Your task to perform on an android device: delete browsing data in the chrome app Image 0: 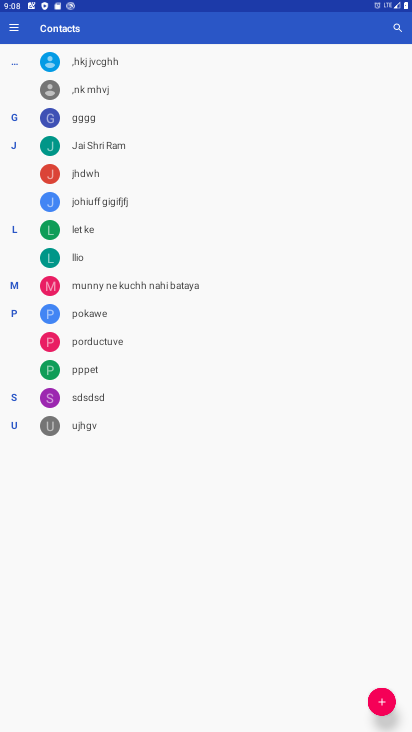
Step 0: press home button
Your task to perform on an android device: delete browsing data in the chrome app Image 1: 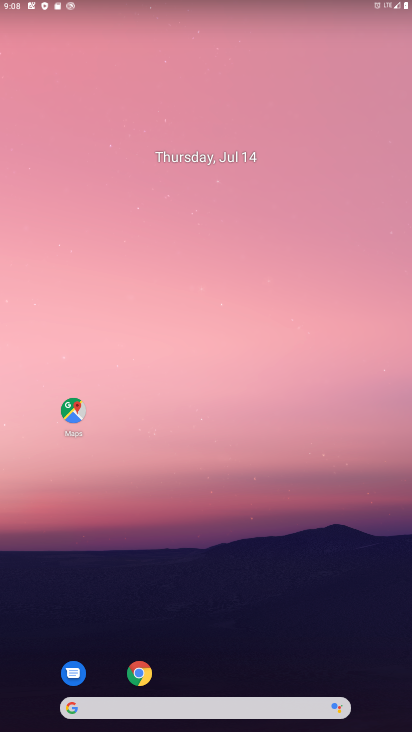
Step 1: click (140, 673)
Your task to perform on an android device: delete browsing data in the chrome app Image 2: 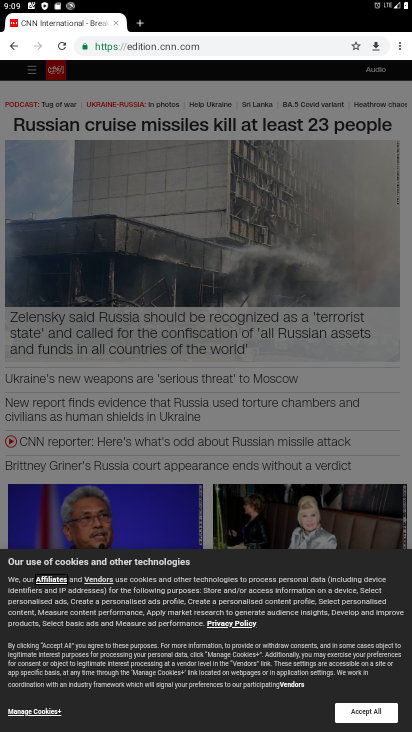
Step 2: click (401, 45)
Your task to perform on an android device: delete browsing data in the chrome app Image 3: 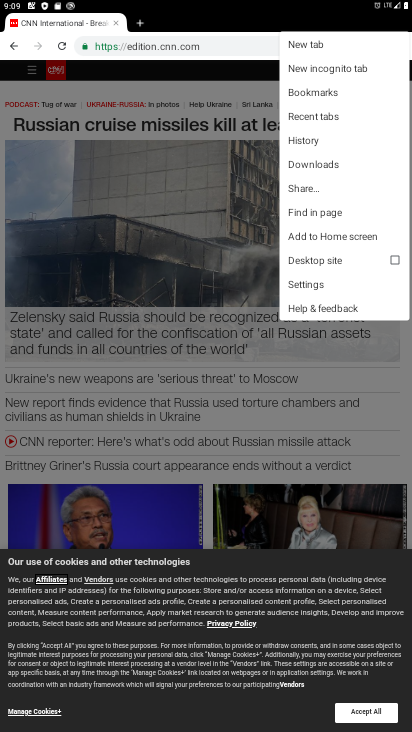
Step 3: click (315, 281)
Your task to perform on an android device: delete browsing data in the chrome app Image 4: 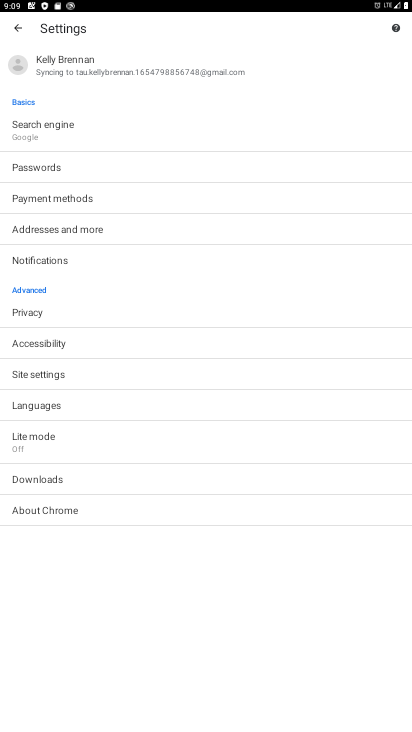
Step 4: click (33, 314)
Your task to perform on an android device: delete browsing data in the chrome app Image 5: 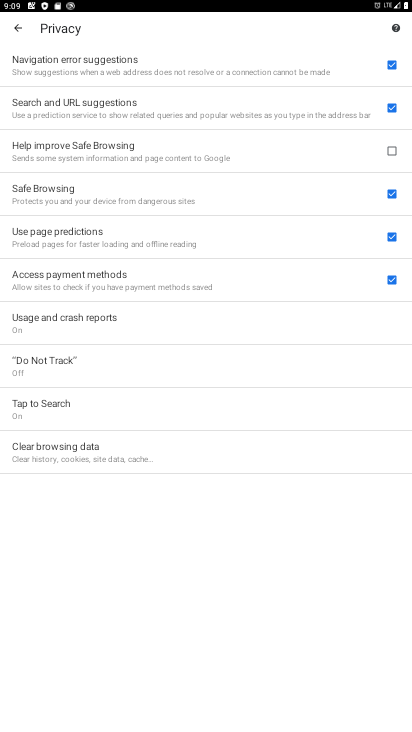
Step 5: click (56, 447)
Your task to perform on an android device: delete browsing data in the chrome app Image 6: 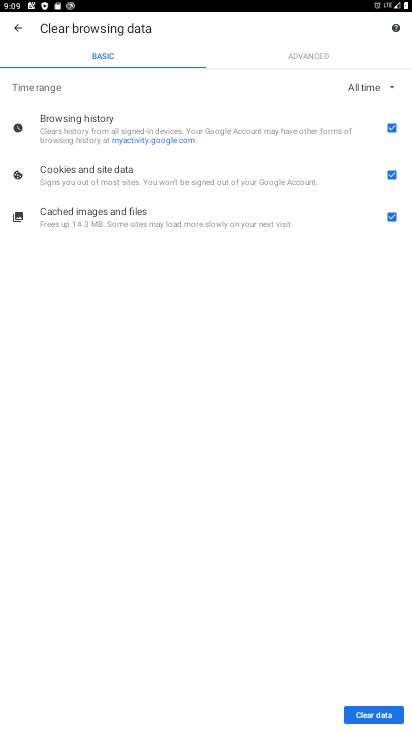
Step 6: click (374, 720)
Your task to perform on an android device: delete browsing data in the chrome app Image 7: 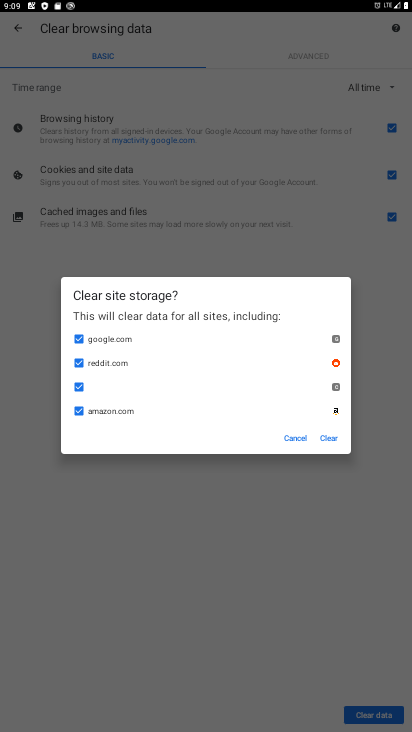
Step 7: click (330, 438)
Your task to perform on an android device: delete browsing data in the chrome app Image 8: 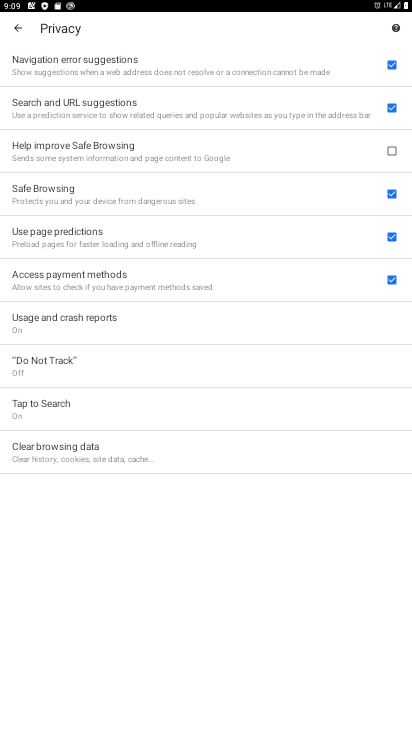
Step 8: task complete